Your task to perform on an android device: toggle sleep mode Image 0: 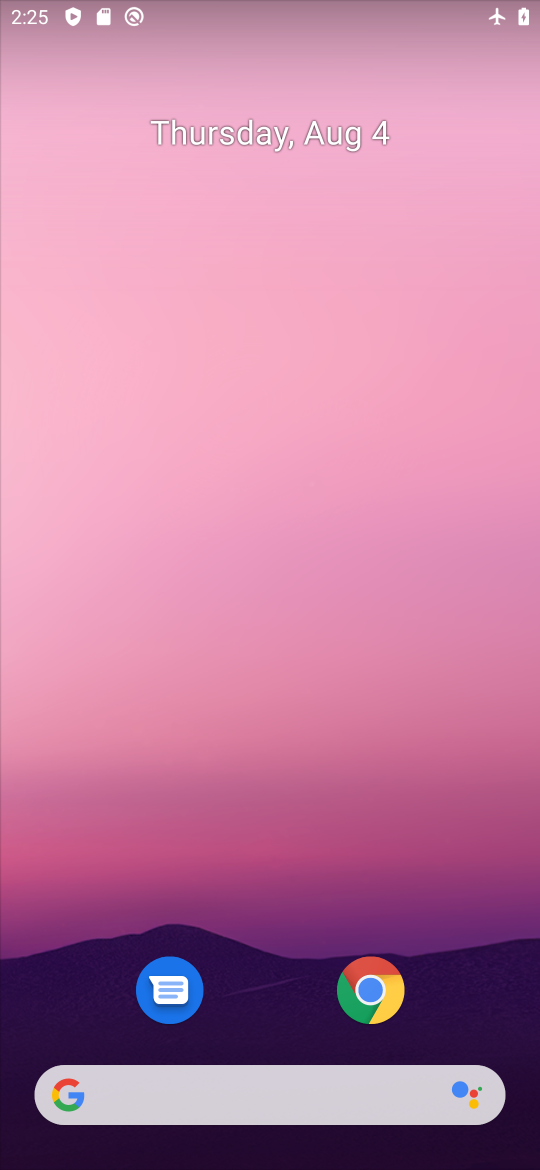
Step 0: drag from (314, 1047) to (315, 7)
Your task to perform on an android device: toggle sleep mode Image 1: 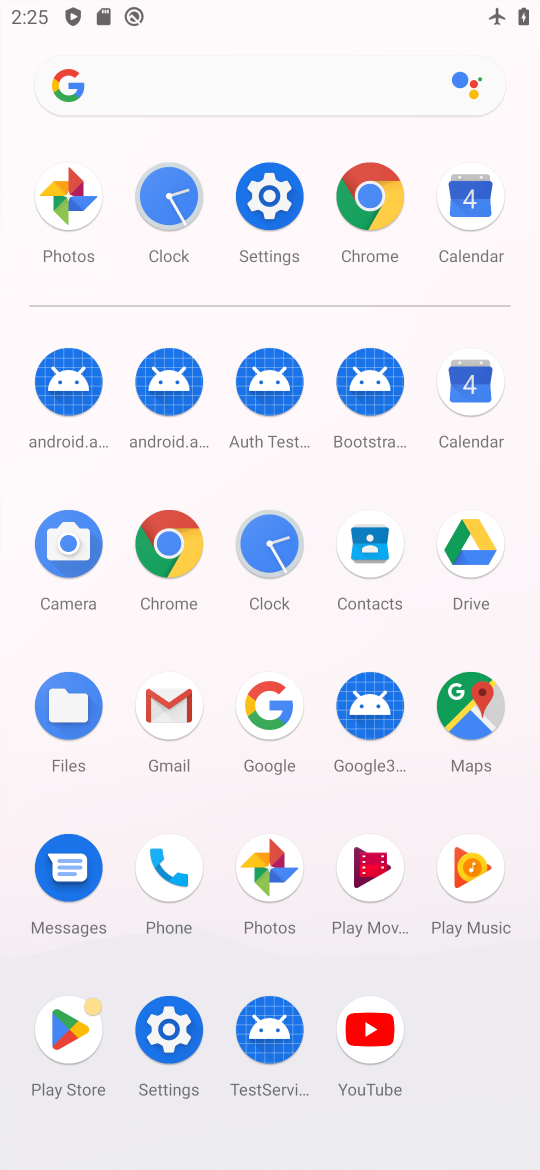
Step 1: click (284, 181)
Your task to perform on an android device: toggle sleep mode Image 2: 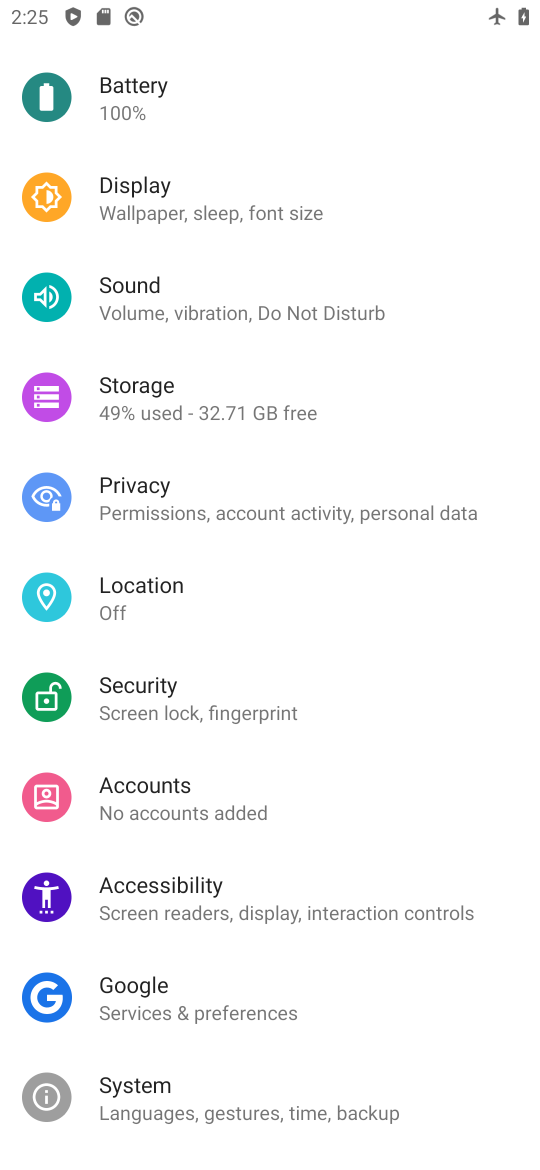
Step 2: click (300, 226)
Your task to perform on an android device: toggle sleep mode Image 3: 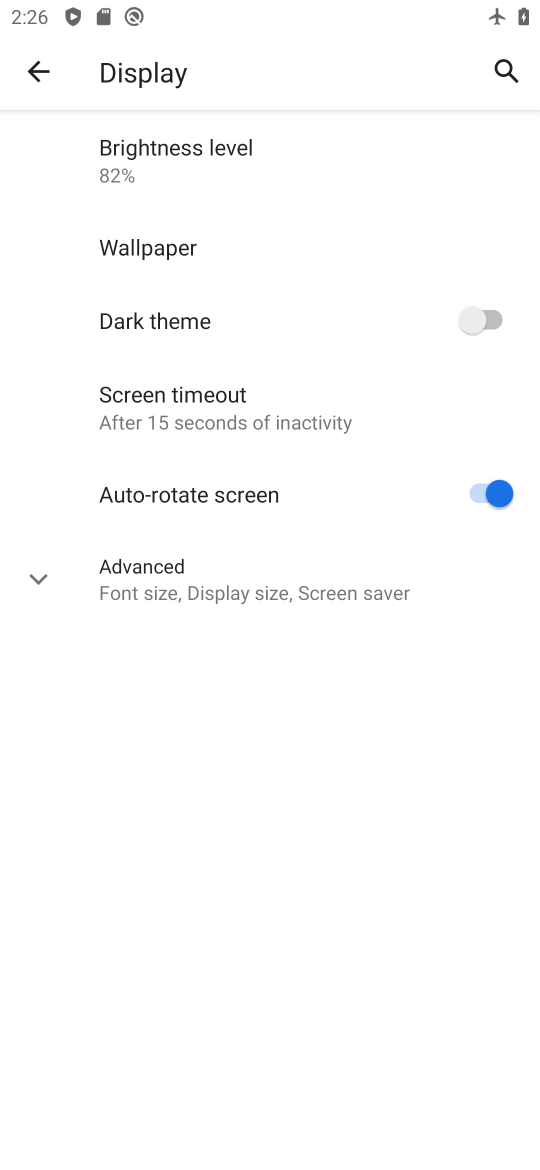
Step 3: click (326, 432)
Your task to perform on an android device: toggle sleep mode Image 4: 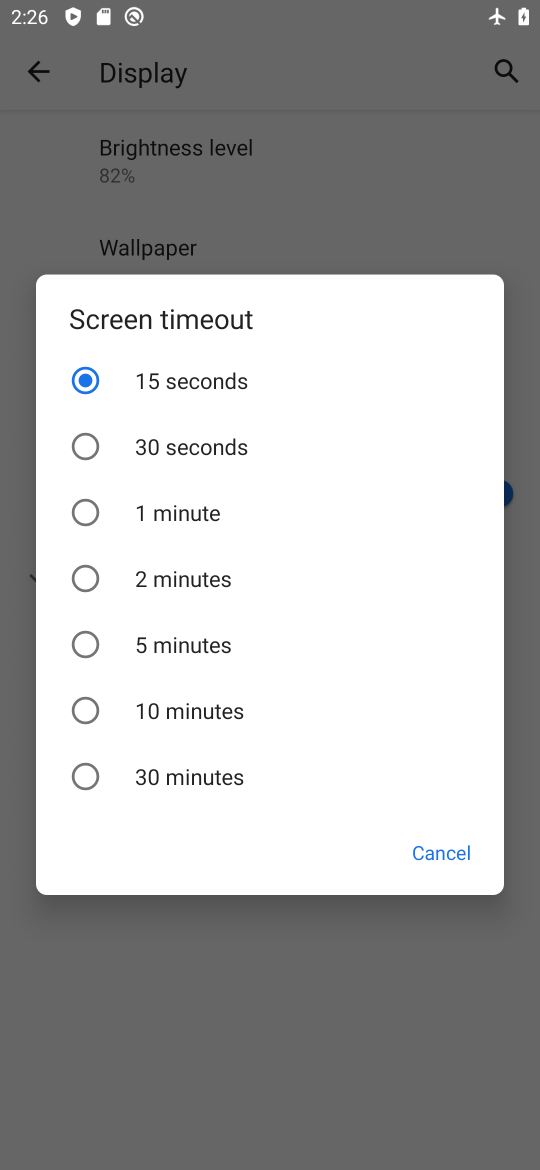
Step 4: task complete